Your task to perform on an android device: toggle javascript in the chrome app Image 0: 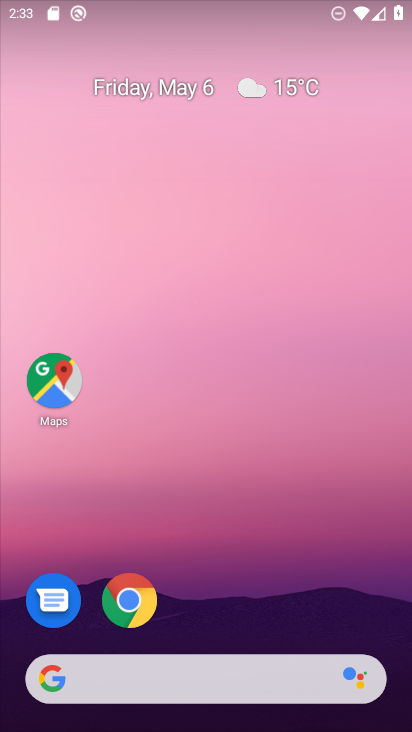
Step 0: drag from (298, 604) to (265, 134)
Your task to perform on an android device: toggle javascript in the chrome app Image 1: 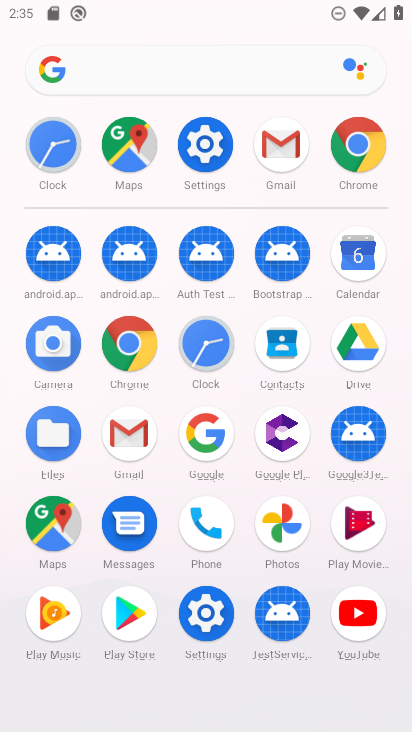
Step 1: click (135, 339)
Your task to perform on an android device: toggle javascript in the chrome app Image 2: 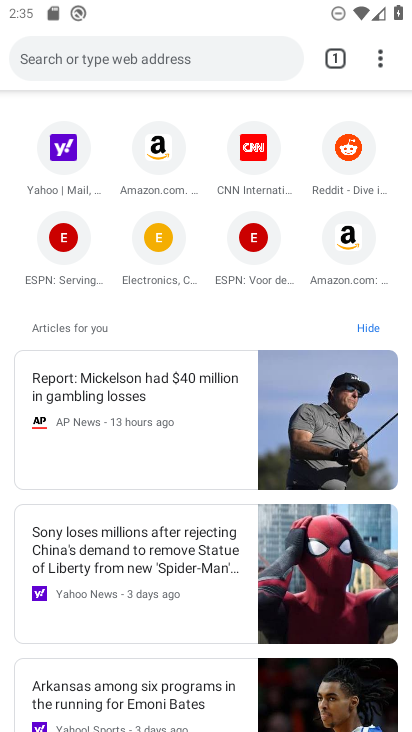
Step 2: click (373, 60)
Your task to perform on an android device: toggle javascript in the chrome app Image 3: 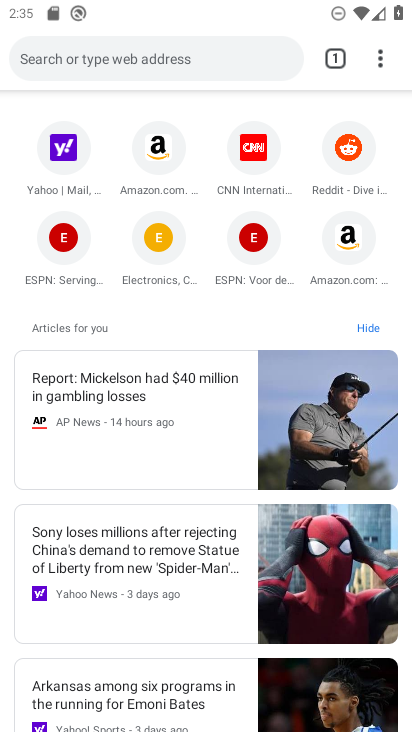
Step 3: click (379, 55)
Your task to perform on an android device: toggle javascript in the chrome app Image 4: 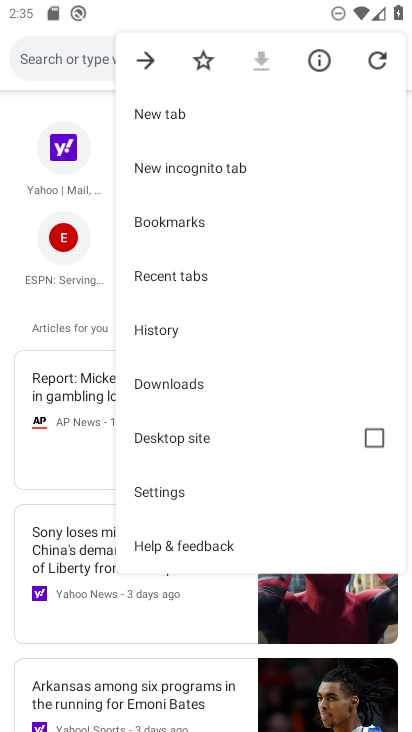
Step 4: click (191, 494)
Your task to perform on an android device: toggle javascript in the chrome app Image 5: 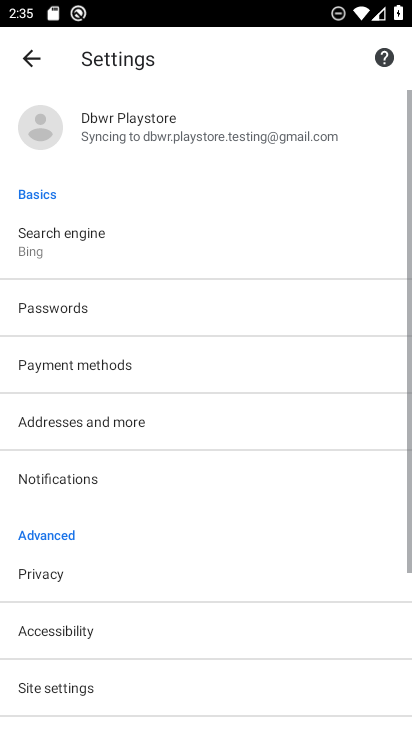
Step 5: drag from (84, 651) to (117, 291)
Your task to perform on an android device: toggle javascript in the chrome app Image 6: 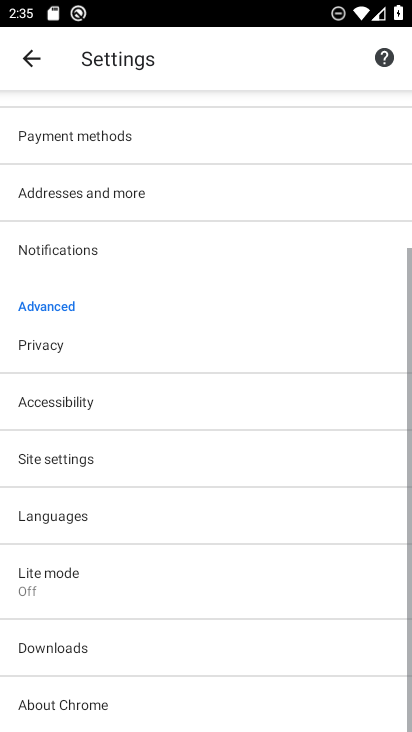
Step 6: click (56, 460)
Your task to perform on an android device: toggle javascript in the chrome app Image 7: 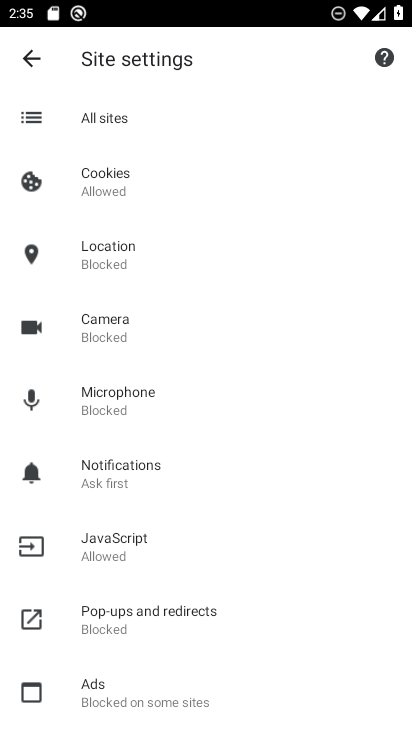
Step 7: click (111, 530)
Your task to perform on an android device: toggle javascript in the chrome app Image 8: 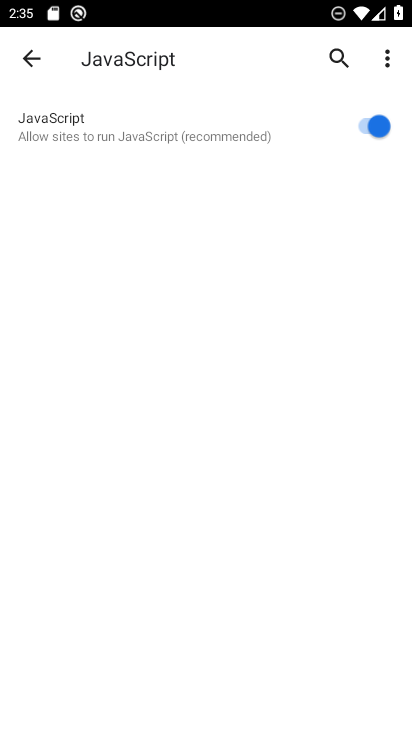
Step 8: click (361, 120)
Your task to perform on an android device: toggle javascript in the chrome app Image 9: 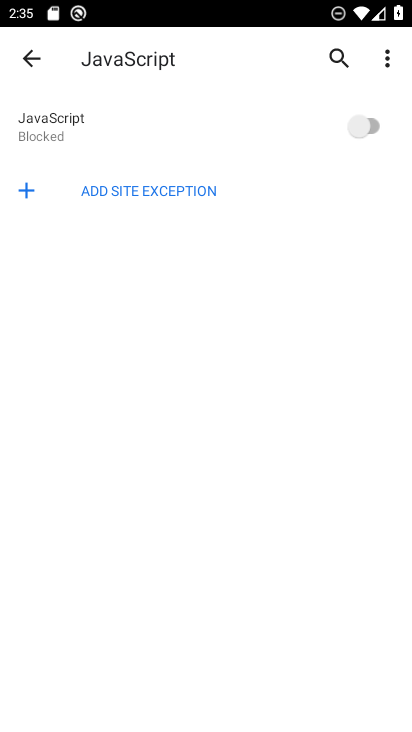
Step 9: task complete